Your task to perform on an android device: see tabs open on other devices in the chrome app Image 0: 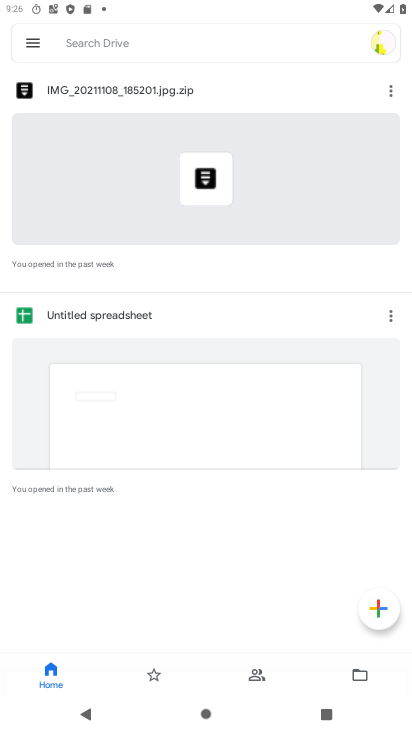
Step 0: press home button
Your task to perform on an android device: see tabs open on other devices in the chrome app Image 1: 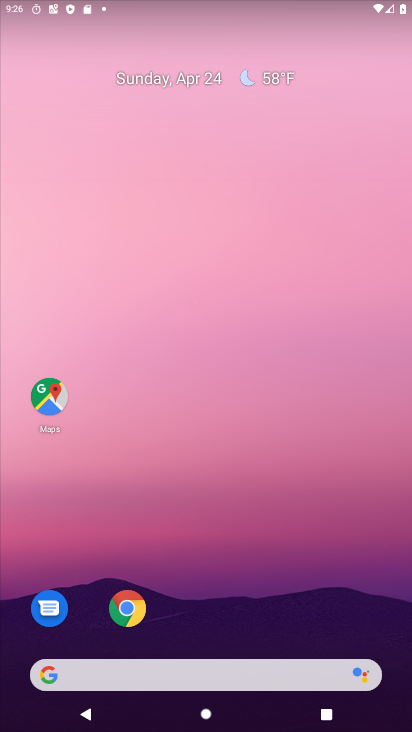
Step 1: drag from (352, 608) to (354, 71)
Your task to perform on an android device: see tabs open on other devices in the chrome app Image 2: 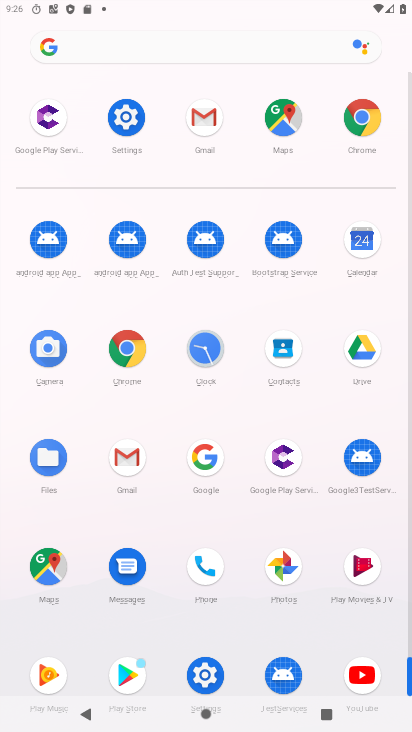
Step 2: click (359, 119)
Your task to perform on an android device: see tabs open on other devices in the chrome app Image 3: 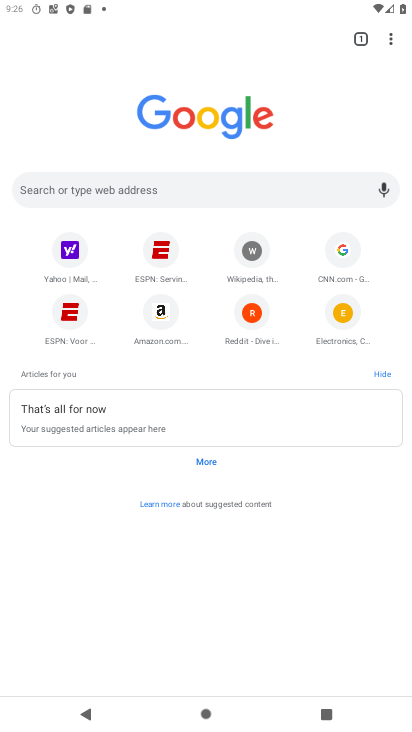
Step 3: click (389, 41)
Your task to perform on an android device: see tabs open on other devices in the chrome app Image 4: 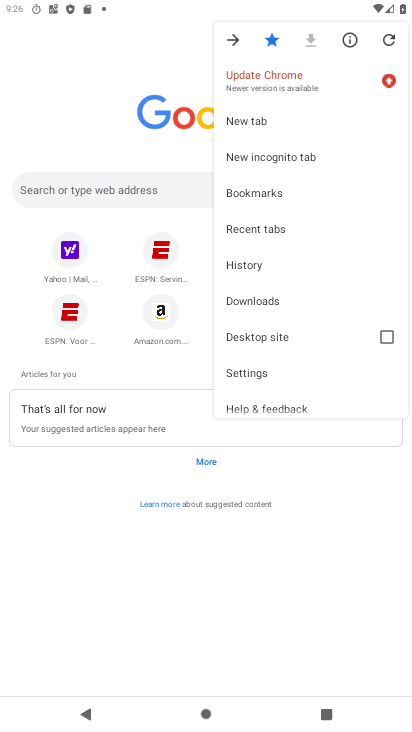
Step 4: click (296, 235)
Your task to perform on an android device: see tabs open on other devices in the chrome app Image 5: 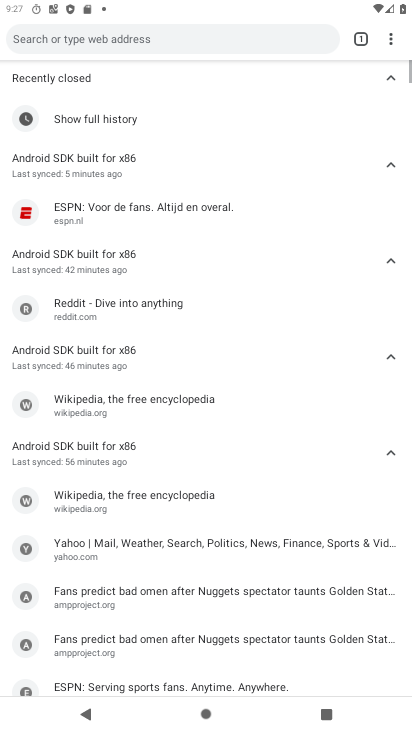
Step 5: click (358, 38)
Your task to perform on an android device: see tabs open on other devices in the chrome app Image 6: 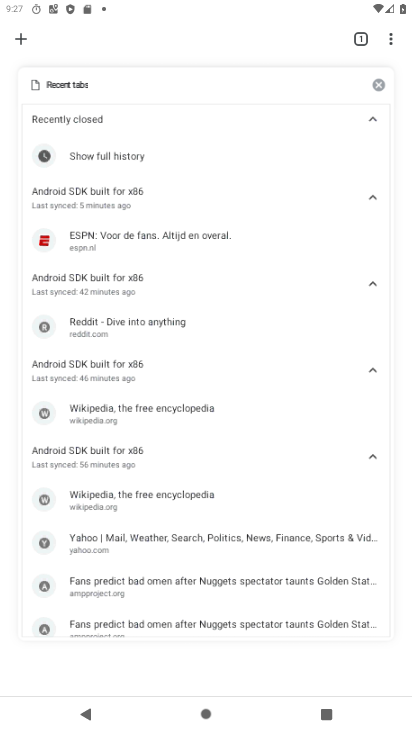
Step 6: task complete